Your task to perform on an android device: turn notification dots on Image 0: 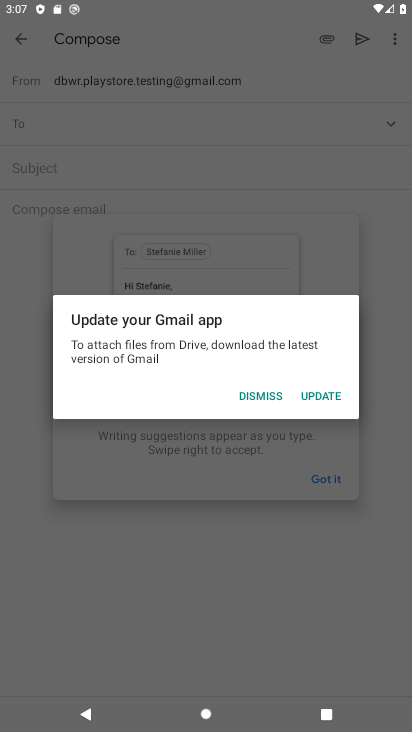
Step 0: press home button
Your task to perform on an android device: turn notification dots on Image 1: 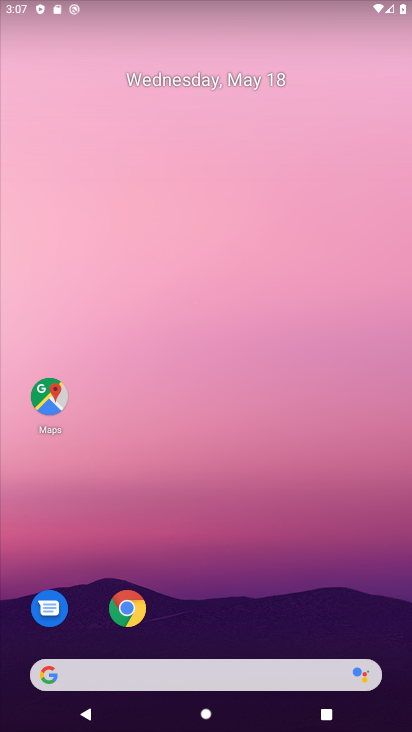
Step 1: drag from (125, 557) to (154, 281)
Your task to perform on an android device: turn notification dots on Image 2: 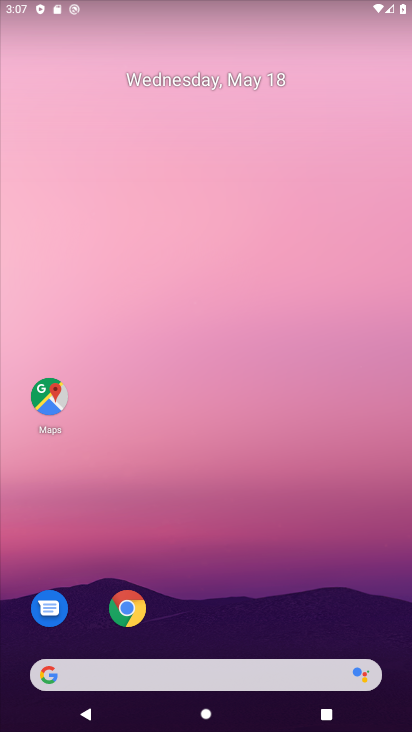
Step 2: drag from (208, 650) to (182, 106)
Your task to perform on an android device: turn notification dots on Image 3: 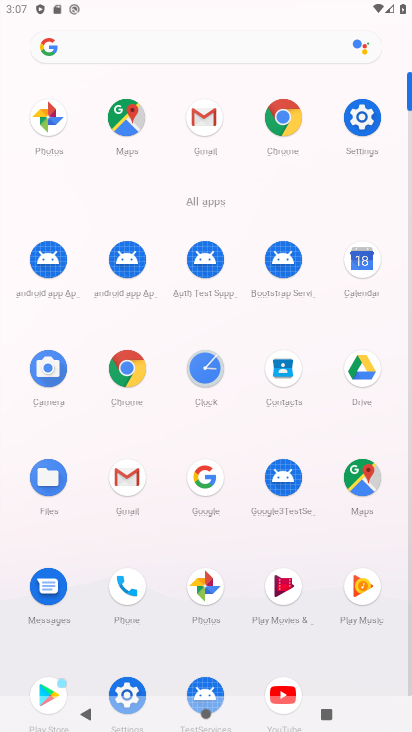
Step 3: click (365, 122)
Your task to perform on an android device: turn notification dots on Image 4: 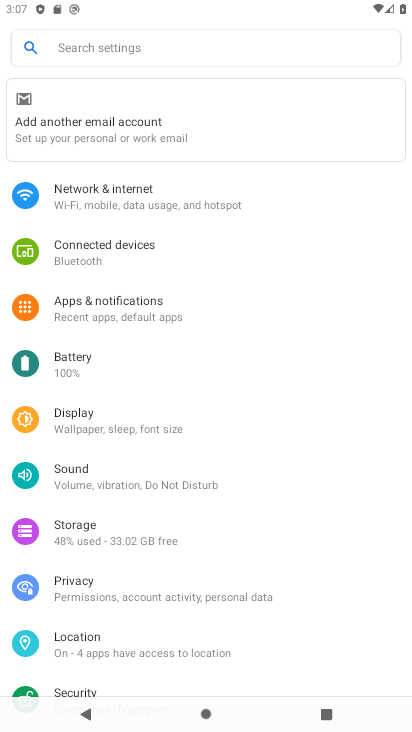
Step 4: click (78, 305)
Your task to perform on an android device: turn notification dots on Image 5: 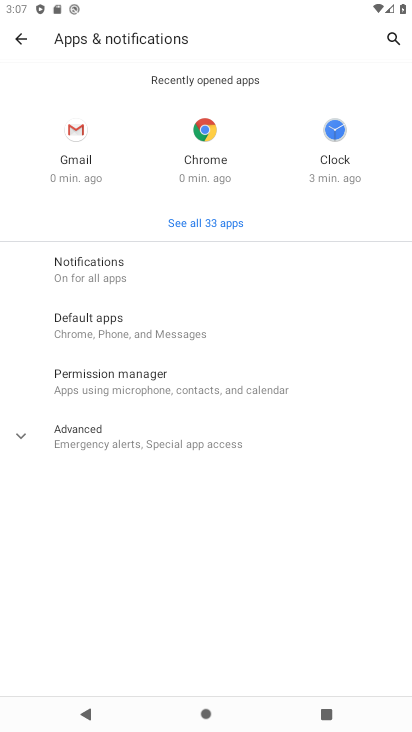
Step 5: click (60, 432)
Your task to perform on an android device: turn notification dots on Image 6: 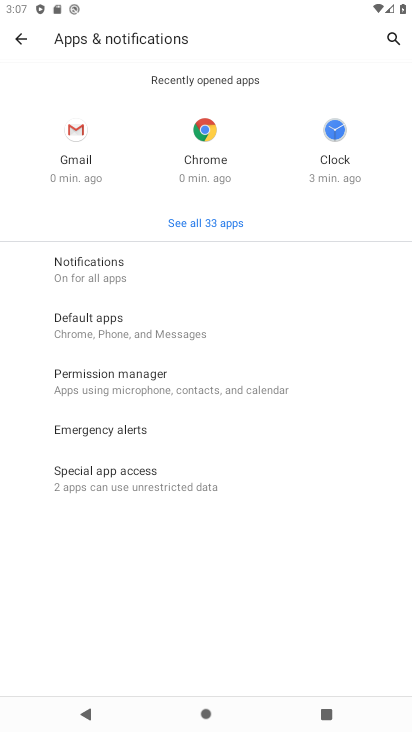
Step 6: click (85, 267)
Your task to perform on an android device: turn notification dots on Image 7: 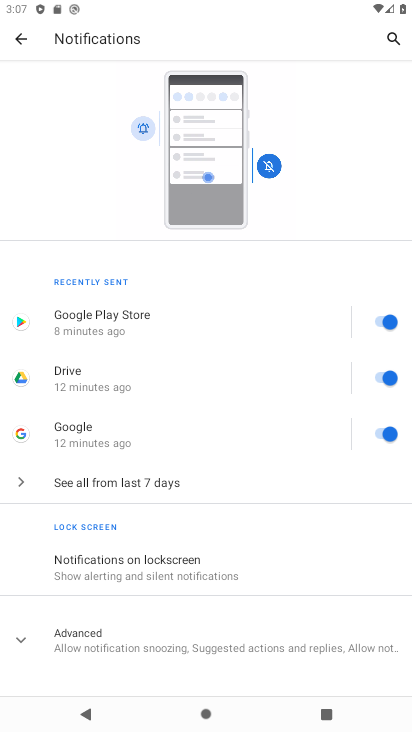
Step 7: click (92, 567)
Your task to perform on an android device: turn notification dots on Image 8: 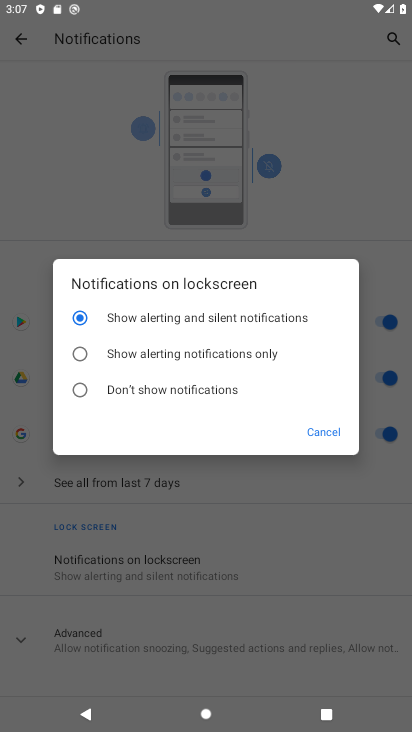
Step 8: click (322, 429)
Your task to perform on an android device: turn notification dots on Image 9: 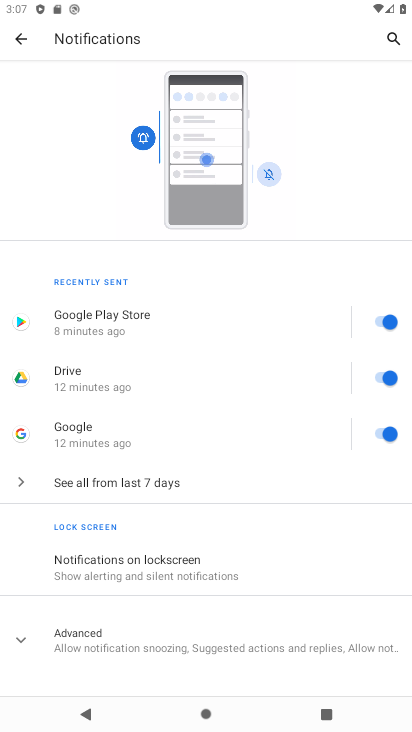
Step 9: drag from (111, 645) to (102, 333)
Your task to perform on an android device: turn notification dots on Image 10: 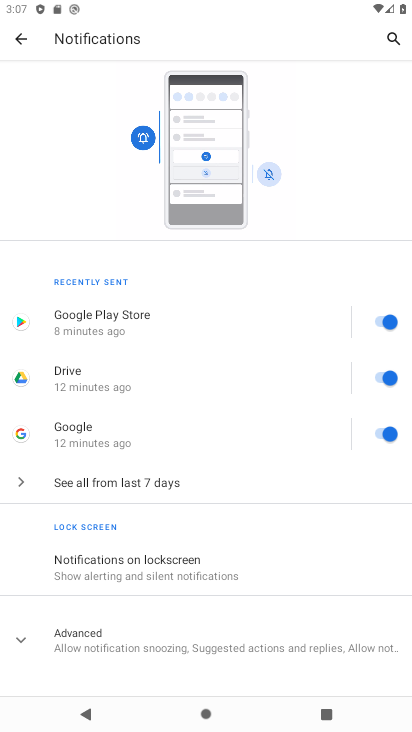
Step 10: click (110, 643)
Your task to perform on an android device: turn notification dots on Image 11: 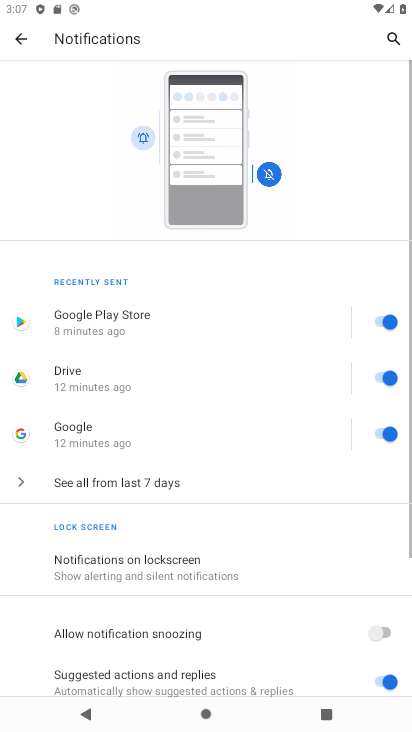
Step 11: task complete